Your task to perform on an android device: Open Google Chrome and click the shortcut for Amazon.com Image 0: 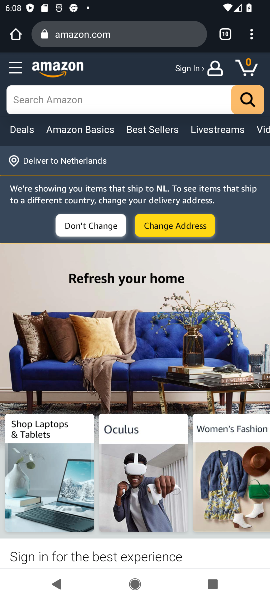
Step 0: task complete